Your task to perform on an android device: See recent photos Image 0: 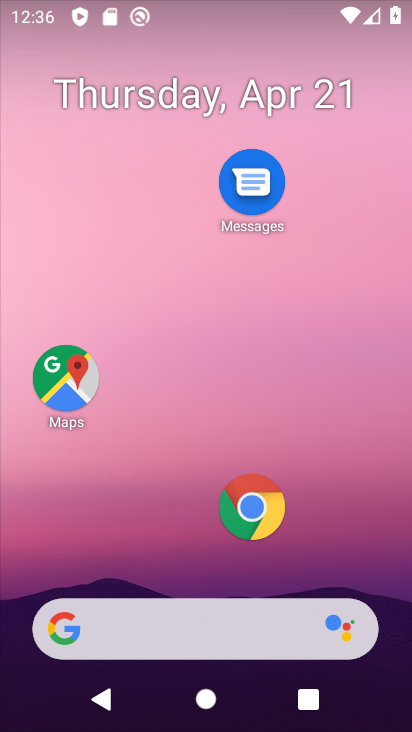
Step 0: drag from (138, 584) to (217, 41)
Your task to perform on an android device: See recent photos Image 1: 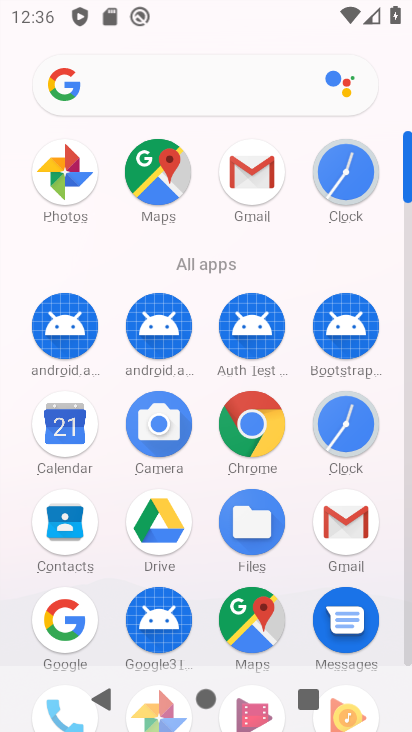
Step 1: drag from (407, 205) to (411, 445)
Your task to perform on an android device: See recent photos Image 2: 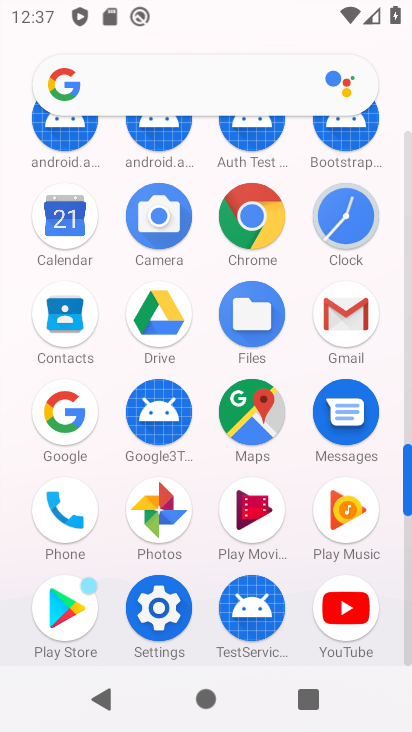
Step 2: click (164, 524)
Your task to perform on an android device: See recent photos Image 3: 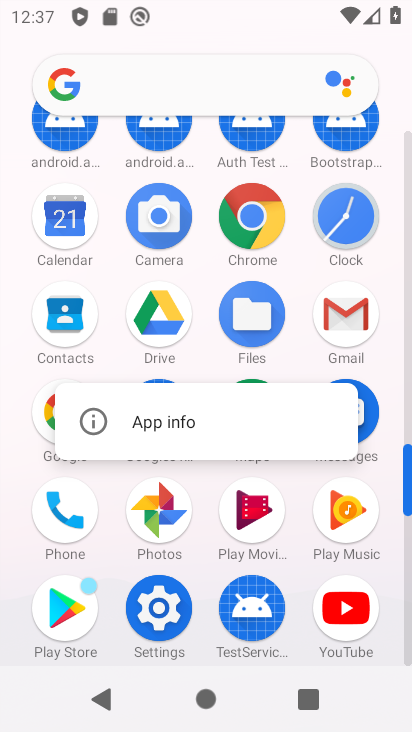
Step 3: click (171, 538)
Your task to perform on an android device: See recent photos Image 4: 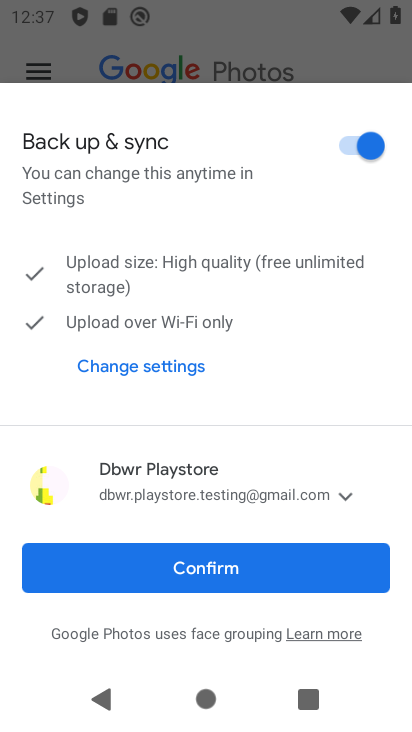
Step 4: click (222, 570)
Your task to perform on an android device: See recent photos Image 5: 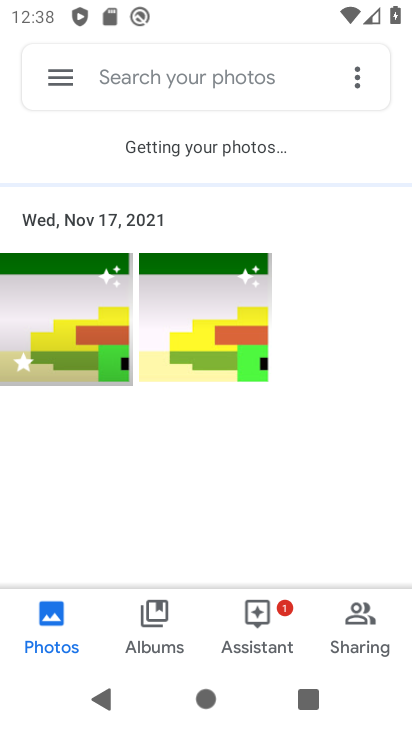
Step 5: task complete